Your task to perform on an android device: change notification settings in the gmail app Image 0: 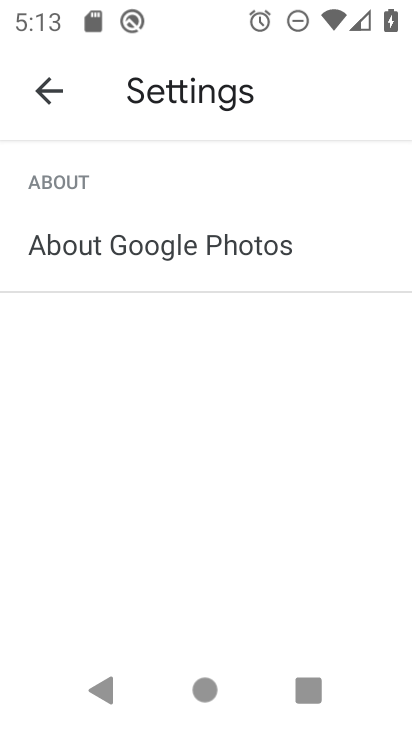
Step 0: press home button
Your task to perform on an android device: change notification settings in the gmail app Image 1: 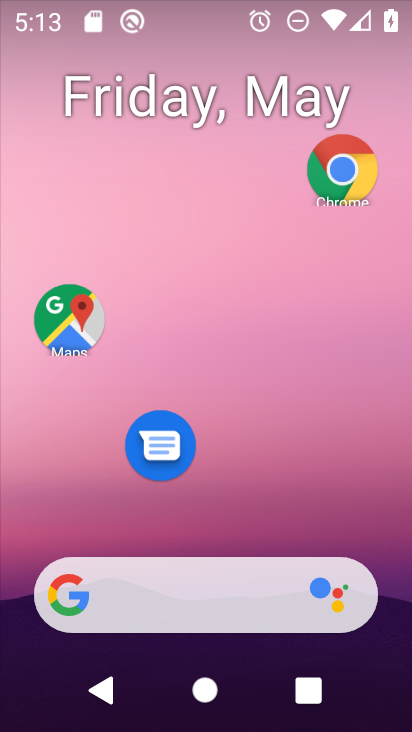
Step 1: drag from (264, 514) to (104, 0)
Your task to perform on an android device: change notification settings in the gmail app Image 2: 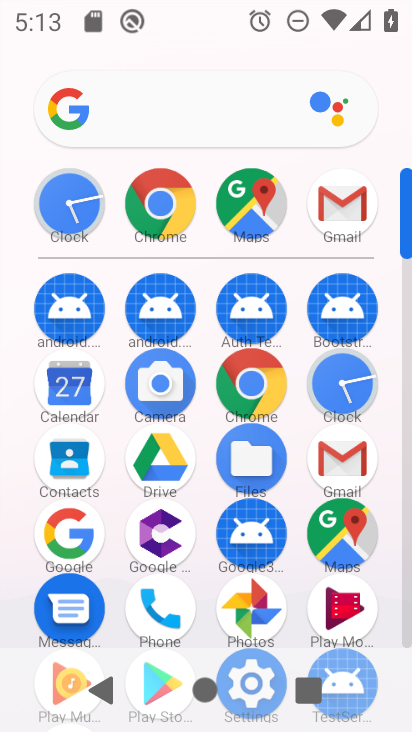
Step 2: click (338, 468)
Your task to perform on an android device: change notification settings in the gmail app Image 3: 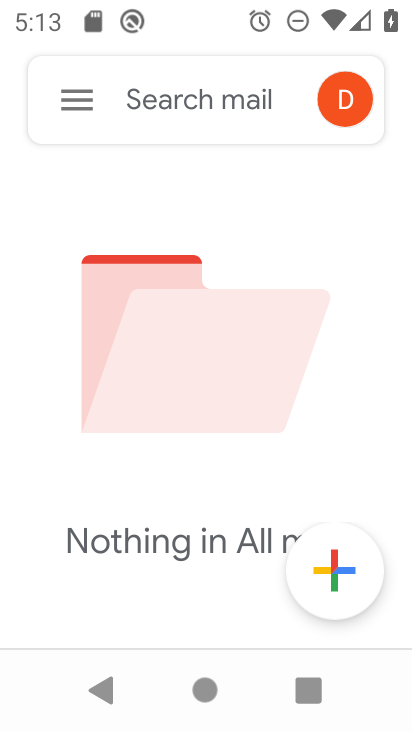
Step 3: click (78, 106)
Your task to perform on an android device: change notification settings in the gmail app Image 4: 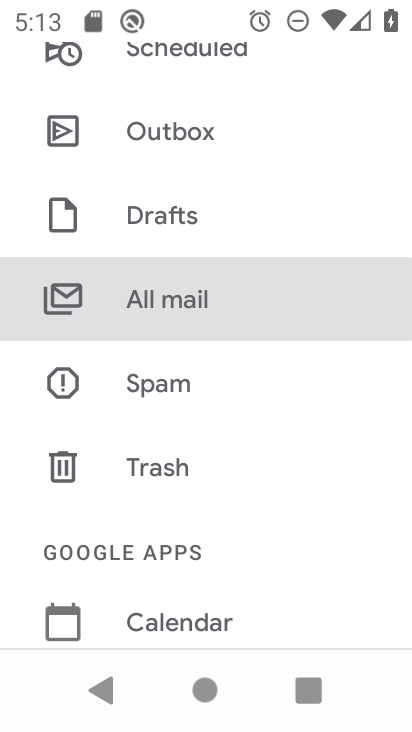
Step 4: drag from (227, 586) to (209, 161)
Your task to perform on an android device: change notification settings in the gmail app Image 5: 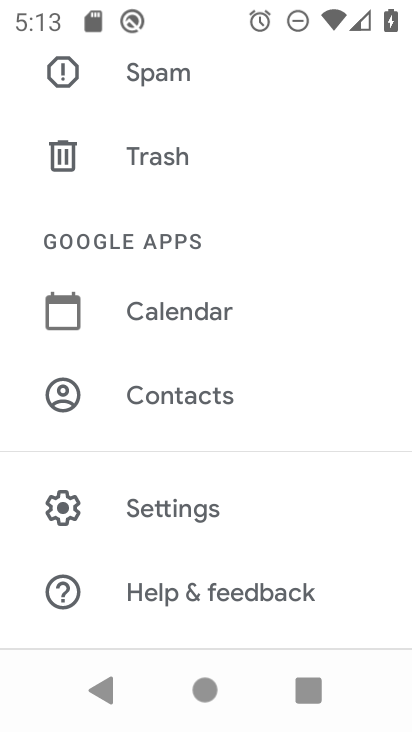
Step 5: click (182, 499)
Your task to perform on an android device: change notification settings in the gmail app Image 6: 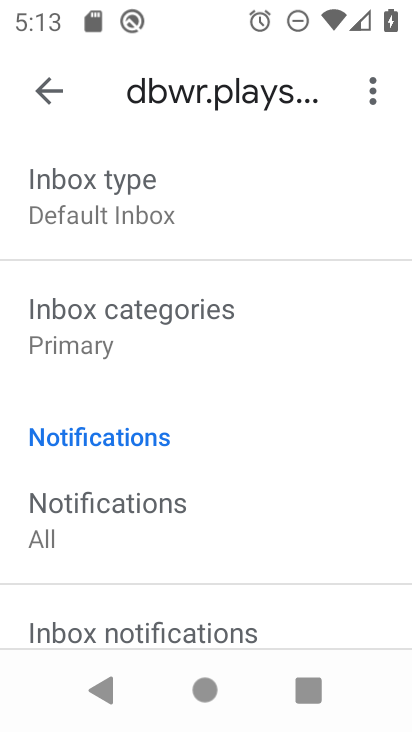
Step 6: click (140, 521)
Your task to perform on an android device: change notification settings in the gmail app Image 7: 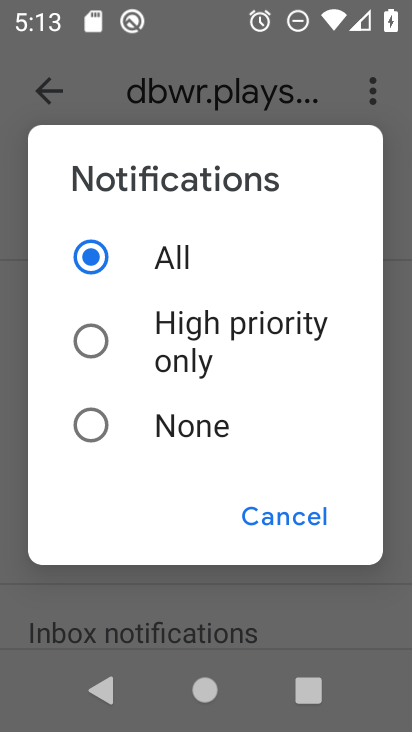
Step 7: click (98, 431)
Your task to perform on an android device: change notification settings in the gmail app Image 8: 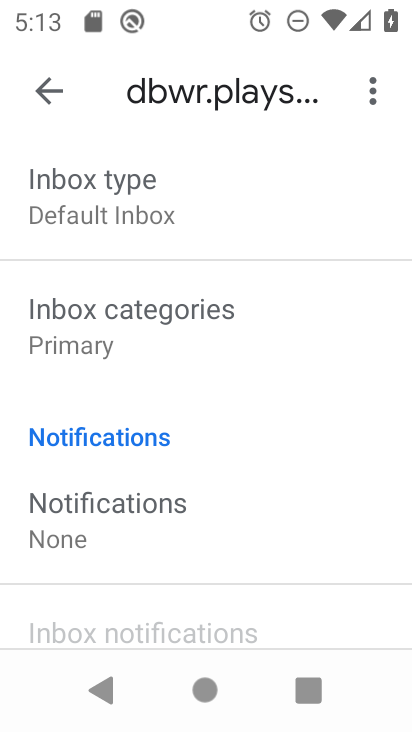
Step 8: task complete